Your task to perform on an android device: open chrome privacy settings Image 0: 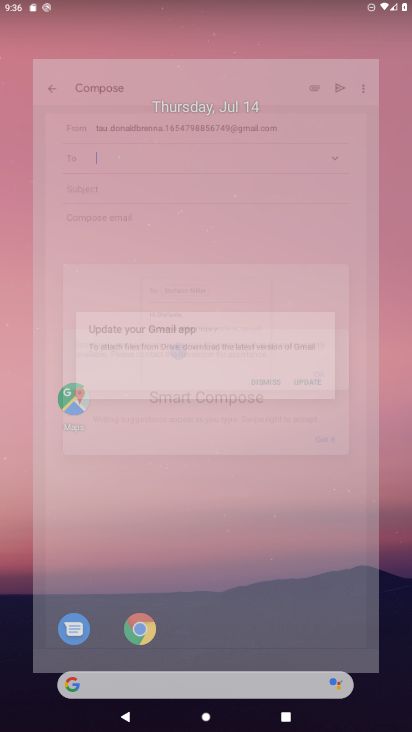
Step 0: drag from (255, 626) to (337, 184)
Your task to perform on an android device: open chrome privacy settings Image 1: 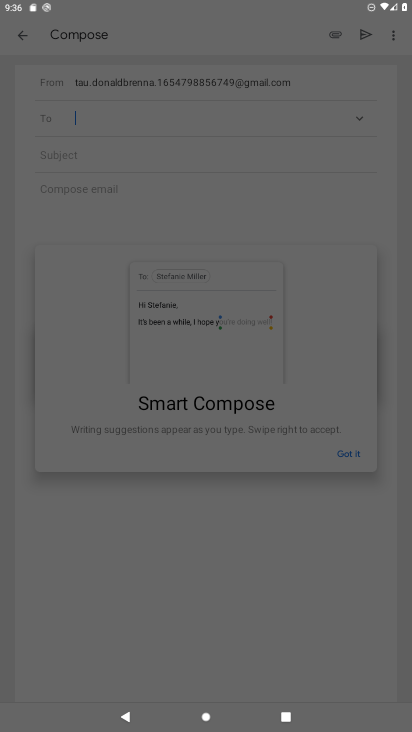
Step 1: press home button
Your task to perform on an android device: open chrome privacy settings Image 2: 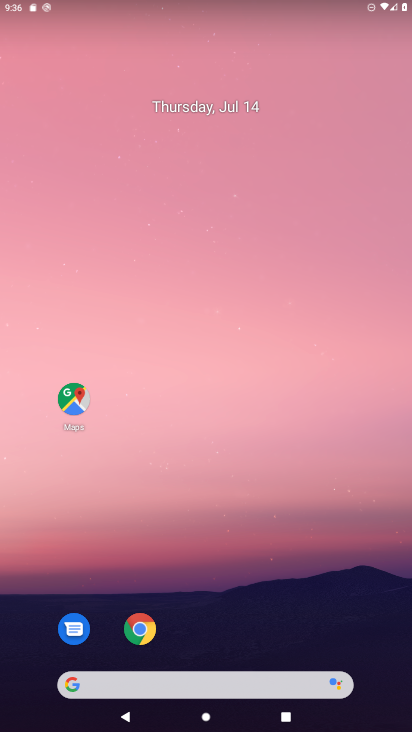
Step 2: drag from (282, 605) to (384, 69)
Your task to perform on an android device: open chrome privacy settings Image 3: 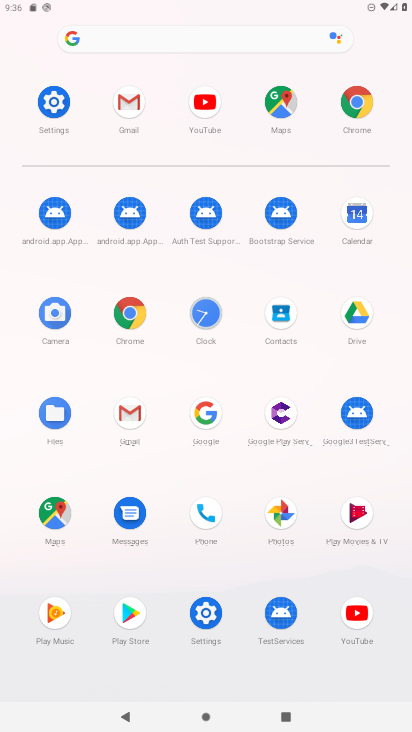
Step 3: click (139, 314)
Your task to perform on an android device: open chrome privacy settings Image 4: 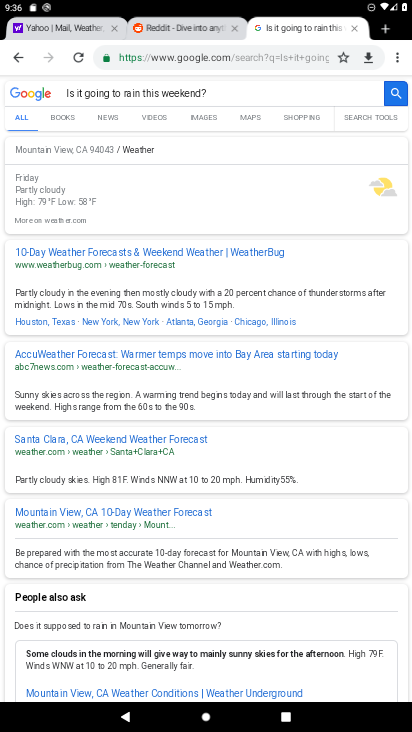
Step 4: drag from (402, 66) to (292, 351)
Your task to perform on an android device: open chrome privacy settings Image 5: 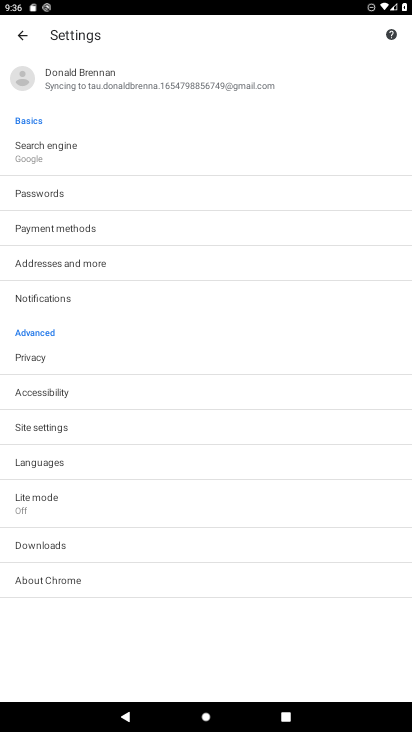
Step 5: click (38, 356)
Your task to perform on an android device: open chrome privacy settings Image 6: 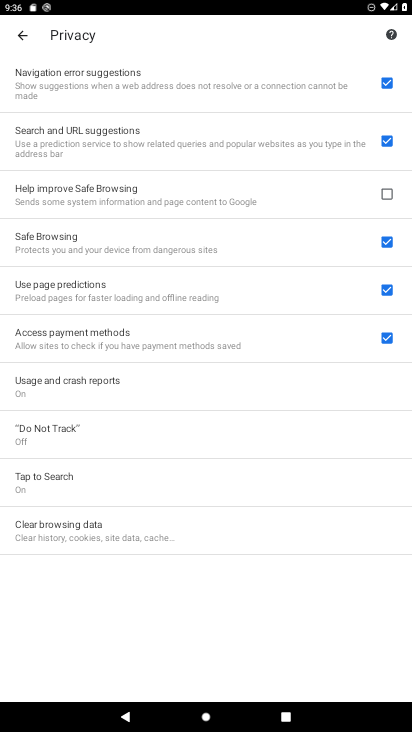
Step 6: task complete